Your task to perform on an android device: change the clock style Image 0: 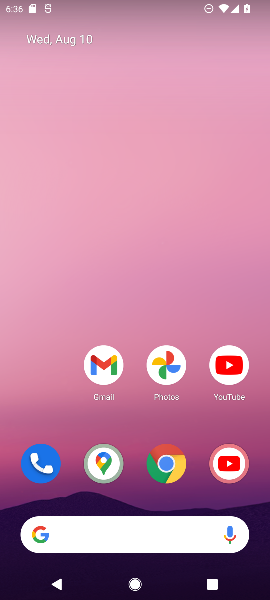
Step 0: drag from (133, 491) to (118, 8)
Your task to perform on an android device: change the clock style Image 1: 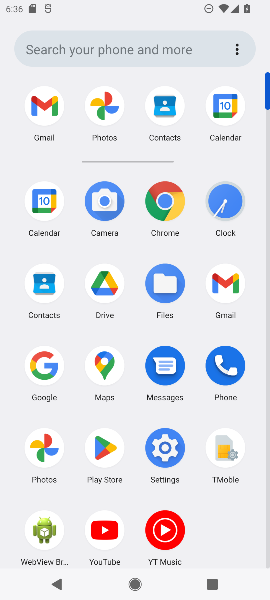
Step 1: click (218, 192)
Your task to perform on an android device: change the clock style Image 2: 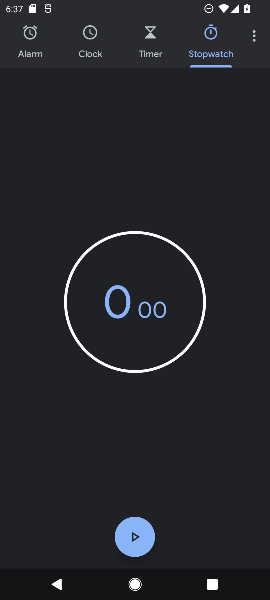
Step 2: click (259, 38)
Your task to perform on an android device: change the clock style Image 3: 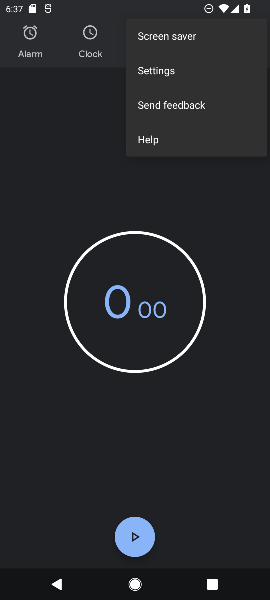
Step 3: click (164, 69)
Your task to perform on an android device: change the clock style Image 4: 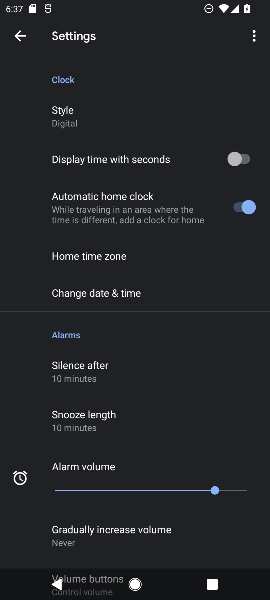
Step 4: click (66, 114)
Your task to perform on an android device: change the clock style Image 5: 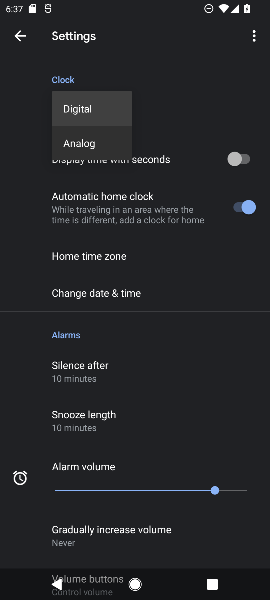
Step 5: click (84, 140)
Your task to perform on an android device: change the clock style Image 6: 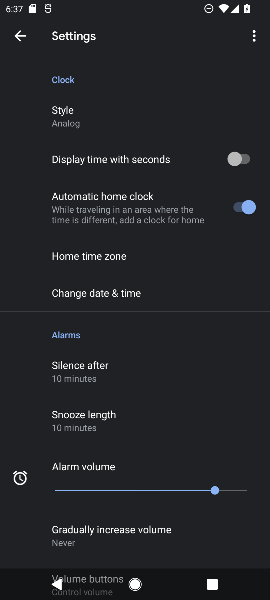
Step 6: task complete